Your task to perform on an android device: check battery use Image 0: 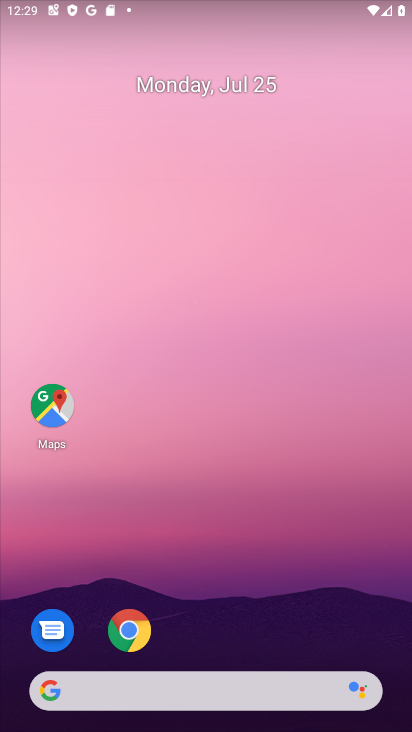
Step 0: drag from (172, 490) to (185, 215)
Your task to perform on an android device: check battery use Image 1: 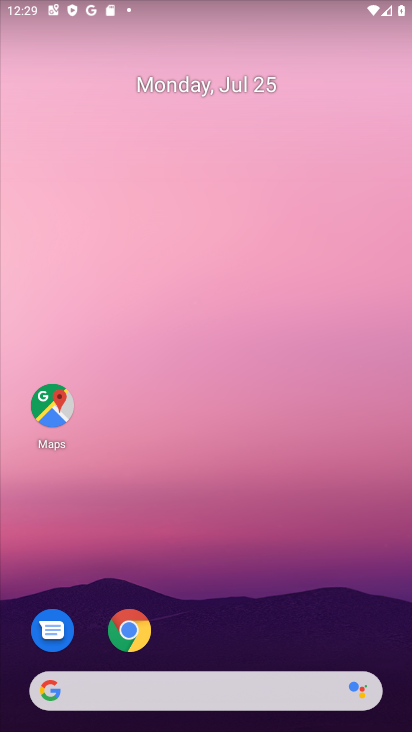
Step 1: drag from (135, 85) to (46, 33)
Your task to perform on an android device: check battery use Image 2: 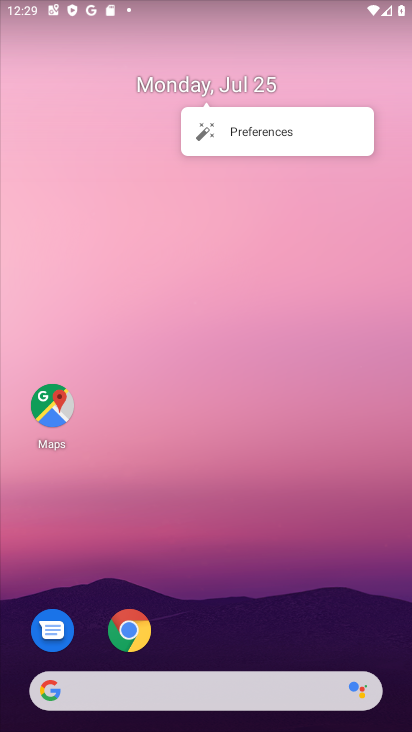
Step 2: drag from (219, 620) to (230, 210)
Your task to perform on an android device: check battery use Image 3: 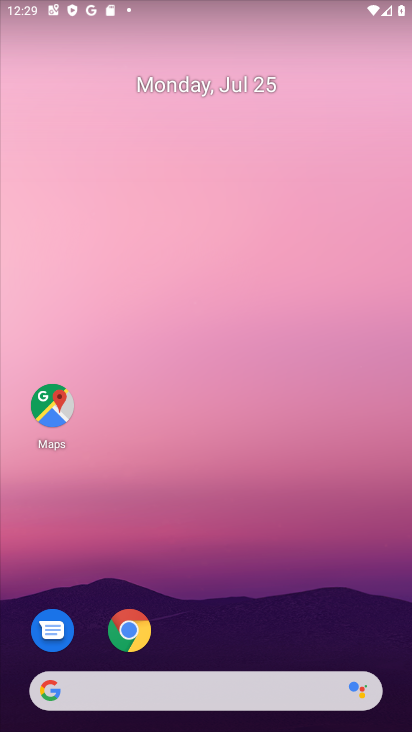
Step 3: drag from (212, 625) to (311, 23)
Your task to perform on an android device: check battery use Image 4: 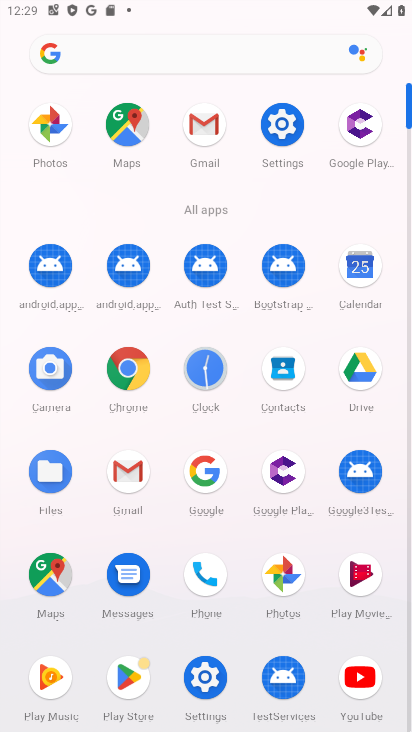
Step 4: click (294, 168)
Your task to perform on an android device: check battery use Image 5: 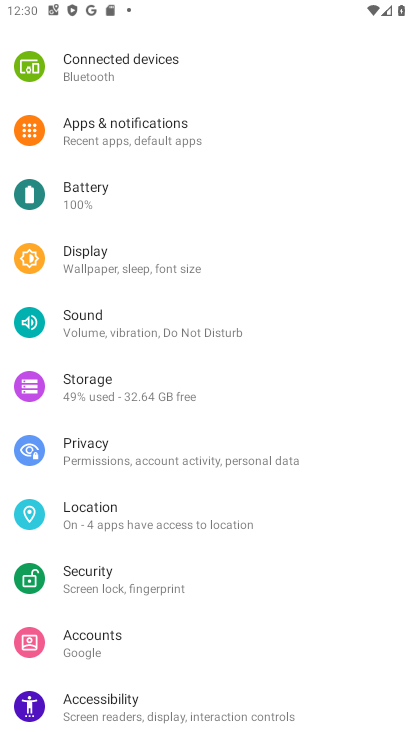
Step 5: click (78, 198)
Your task to perform on an android device: check battery use Image 6: 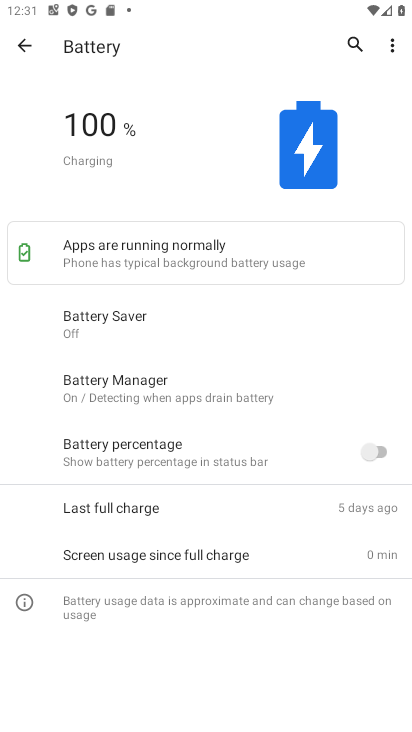
Step 6: task complete